Your task to perform on an android device: check out phone information Image 0: 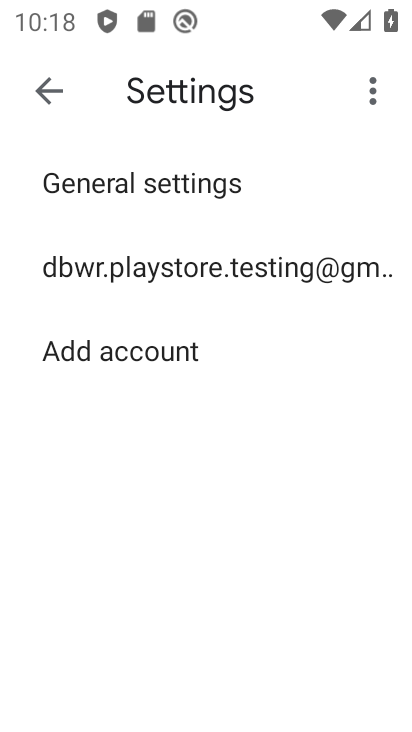
Step 0: press home button
Your task to perform on an android device: check out phone information Image 1: 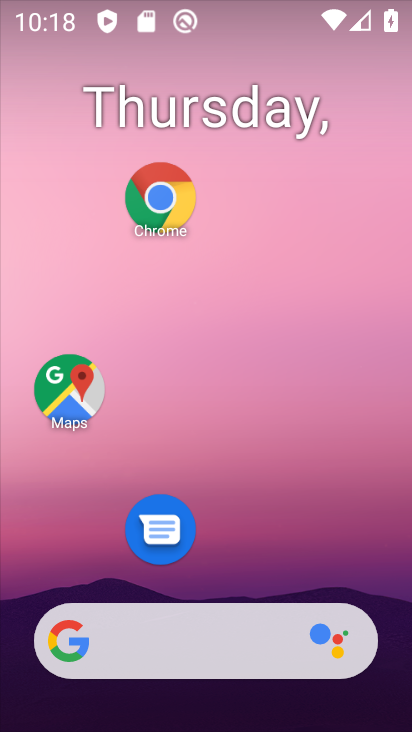
Step 1: drag from (320, 505) to (231, 19)
Your task to perform on an android device: check out phone information Image 2: 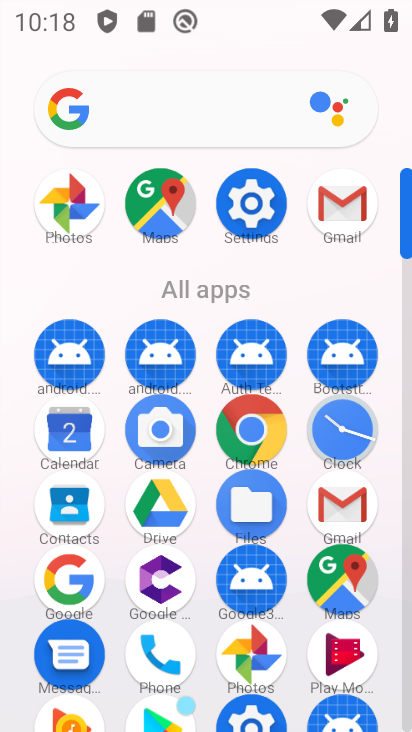
Step 2: click (251, 197)
Your task to perform on an android device: check out phone information Image 3: 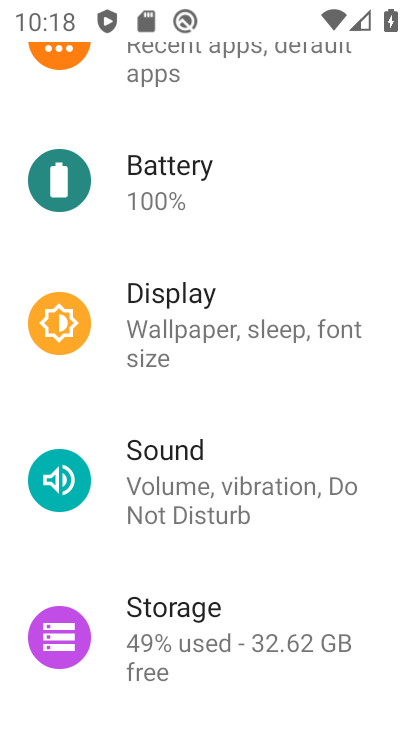
Step 3: drag from (254, 586) to (237, 240)
Your task to perform on an android device: check out phone information Image 4: 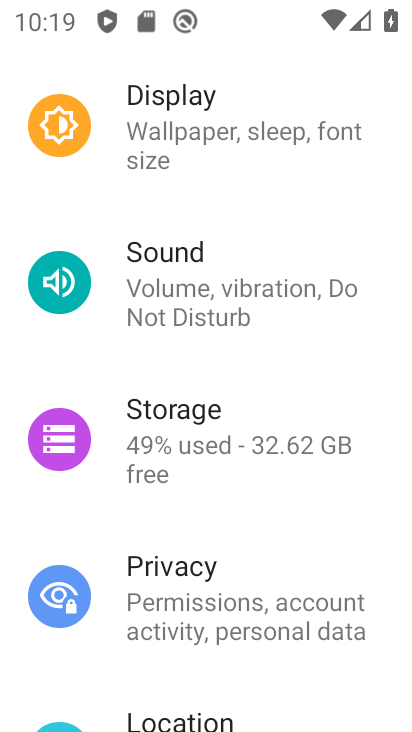
Step 4: drag from (259, 530) to (246, 108)
Your task to perform on an android device: check out phone information Image 5: 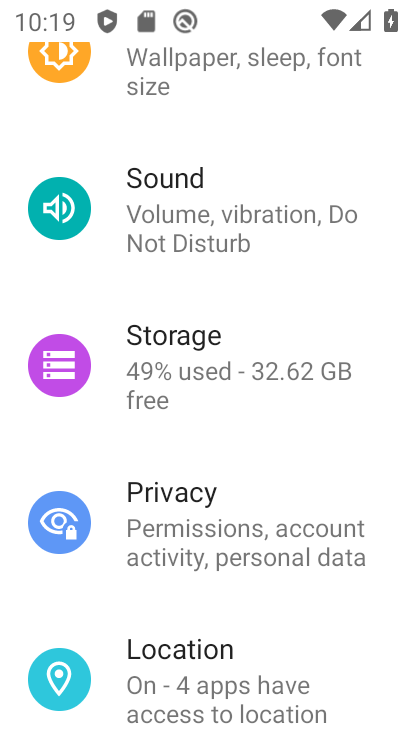
Step 5: drag from (262, 613) to (176, 100)
Your task to perform on an android device: check out phone information Image 6: 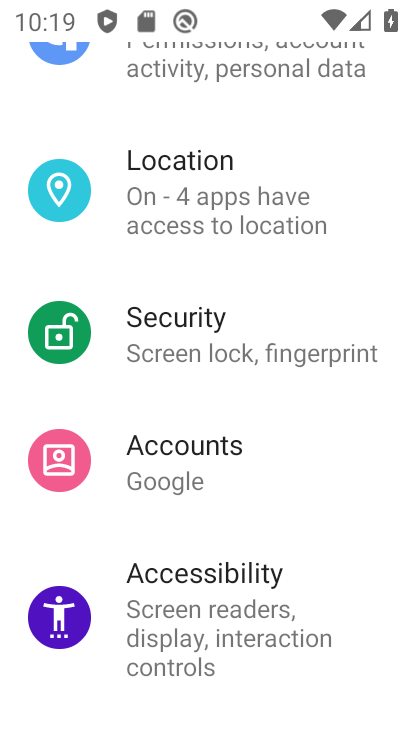
Step 6: drag from (240, 525) to (186, 68)
Your task to perform on an android device: check out phone information Image 7: 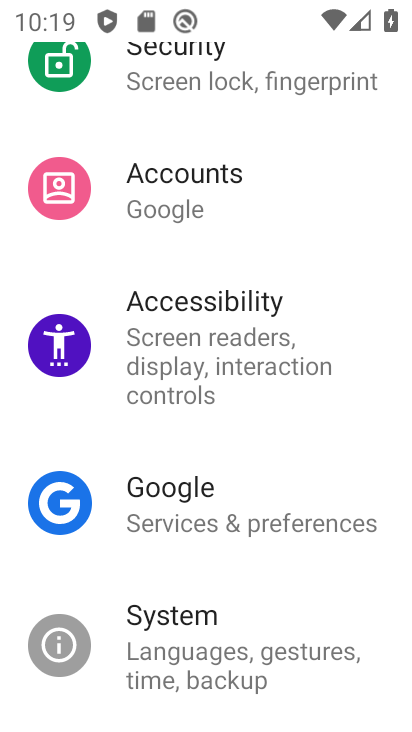
Step 7: drag from (231, 577) to (184, 276)
Your task to perform on an android device: check out phone information Image 8: 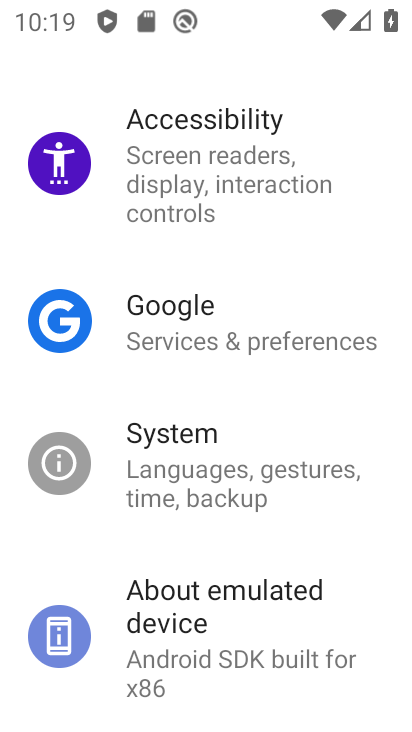
Step 8: drag from (251, 541) to (244, 186)
Your task to perform on an android device: check out phone information Image 9: 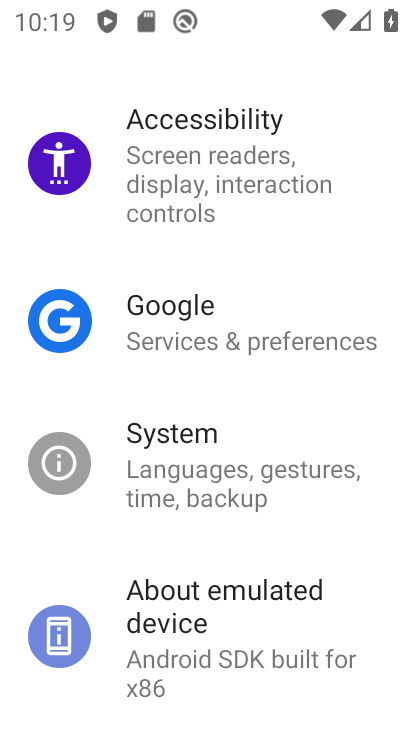
Step 9: click (187, 592)
Your task to perform on an android device: check out phone information Image 10: 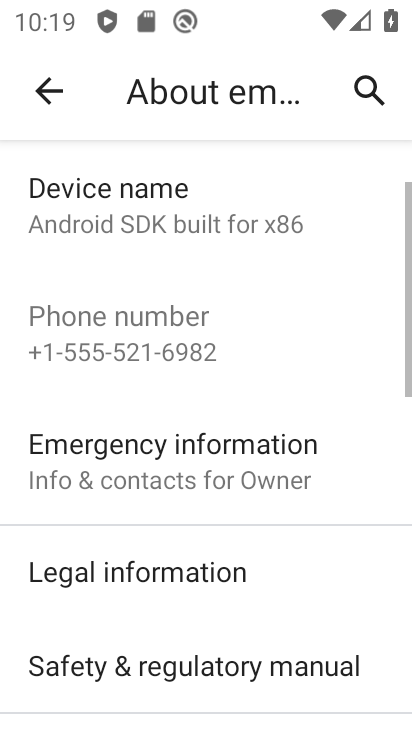
Step 10: task complete